Your task to perform on an android device: read, delete, or share a saved page in the chrome app Image 0: 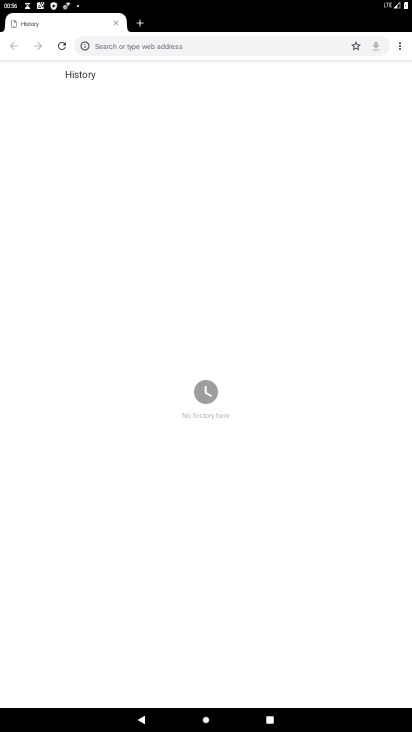
Step 0: press home button
Your task to perform on an android device: read, delete, or share a saved page in the chrome app Image 1: 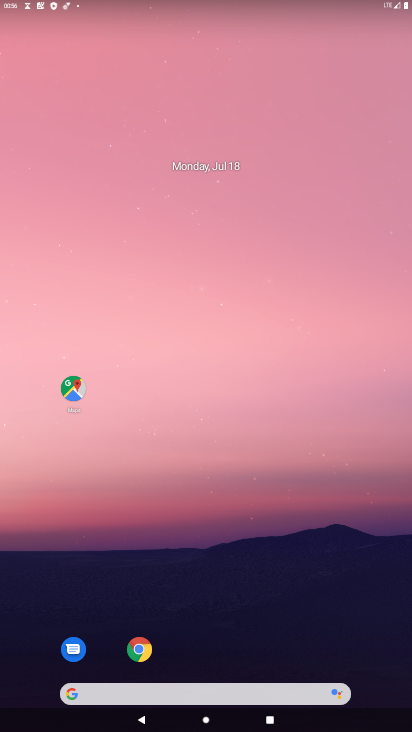
Step 1: click (142, 647)
Your task to perform on an android device: read, delete, or share a saved page in the chrome app Image 2: 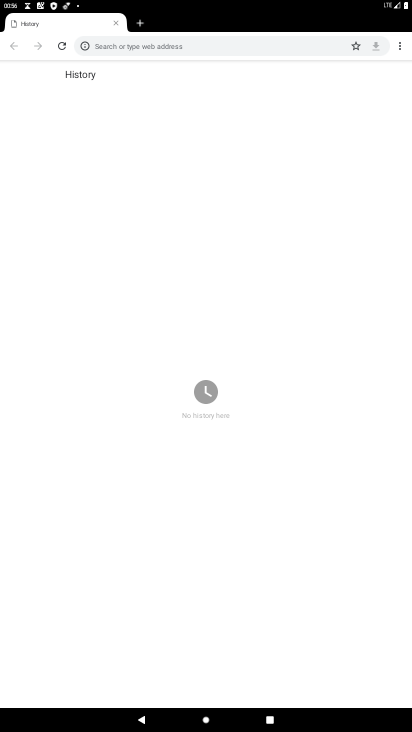
Step 2: task complete